Your task to perform on an android device: Turn on the flashlight Image 0: 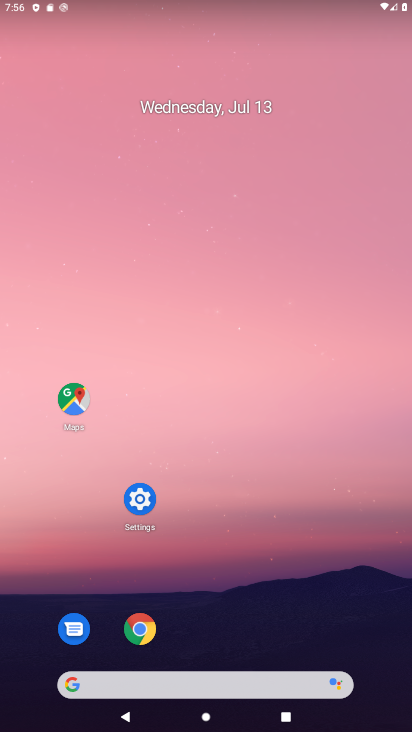
Step 0: drag from (372, 695) to (323, 216)
Your task to perform on an android device: Turn on the flashlight Image 1: 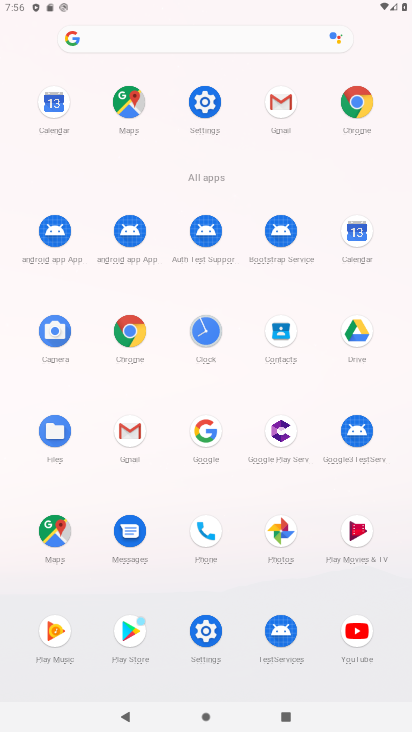
Step 1: click (210, 103)
Your task to perform on an android device: Turn on the flashlight Image 2: 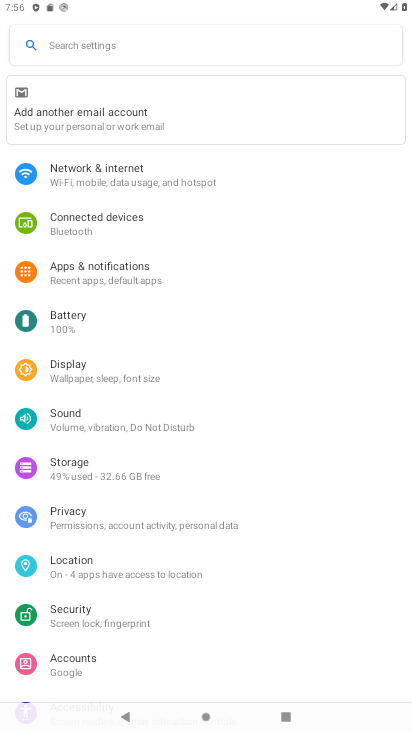
Step 2: click (53, 371)
Your task to perform on an android device: Turn on the flashlight Image 3: 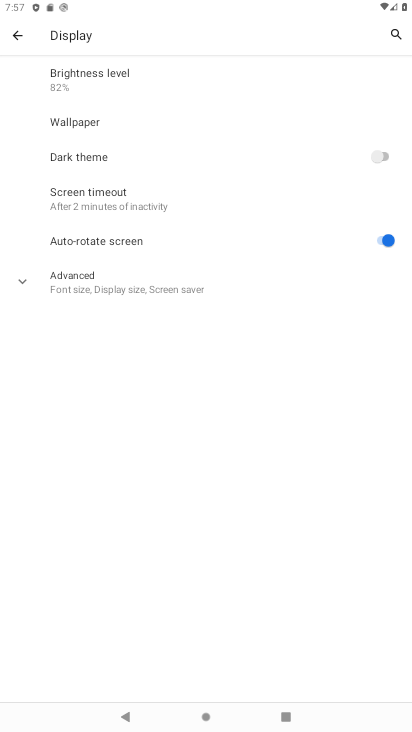
Step 3: task complete